Your task to perform on an android device: all mails in gmail Image 0: 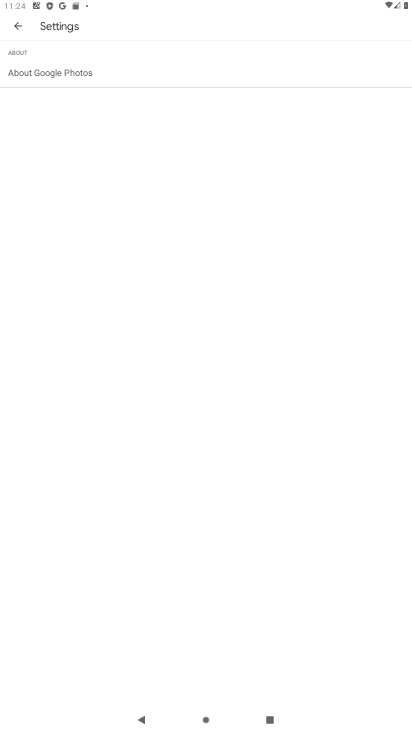
Step 0: press home button
Your task to perform on an android device: all mails in gmail Image 1: 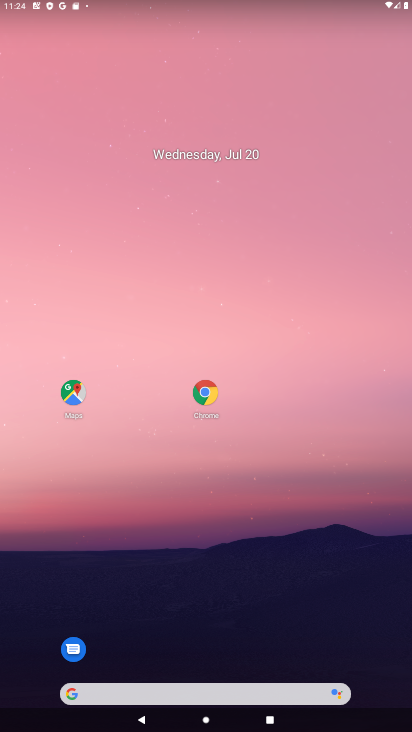
Step 1: drag from (149, 683) to (181, 285)
Your task to perform on an android device: all mails in gmail Image 2: 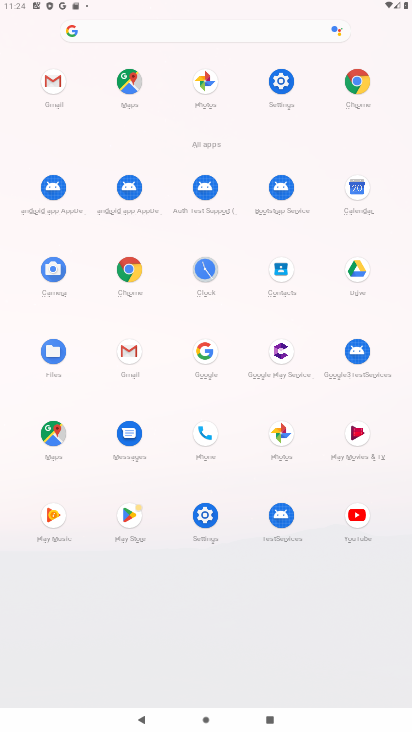
Step 2: click (57, 75)
Your task to perform on an android device: all mails in gmail Image 3: 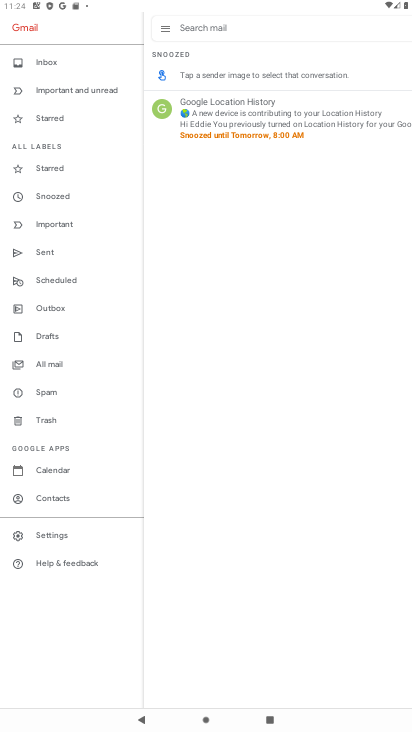
Step 3: click (61, 361)
Your task to perform on an android device: all mails in gmail Image 4: 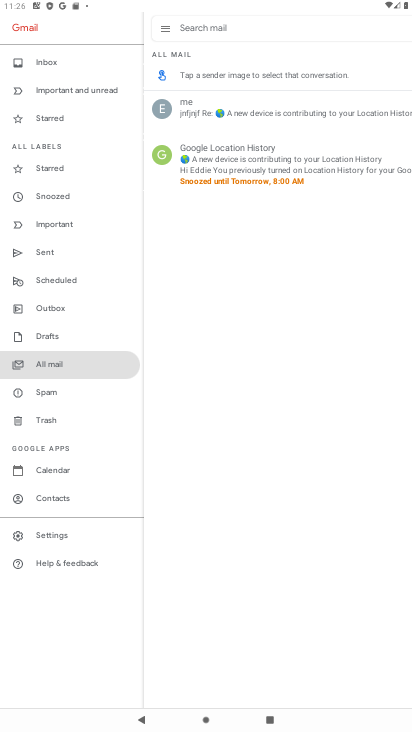
Step 4: task complete